Your task to perform on an android device: install app "Instagram" Image 0: 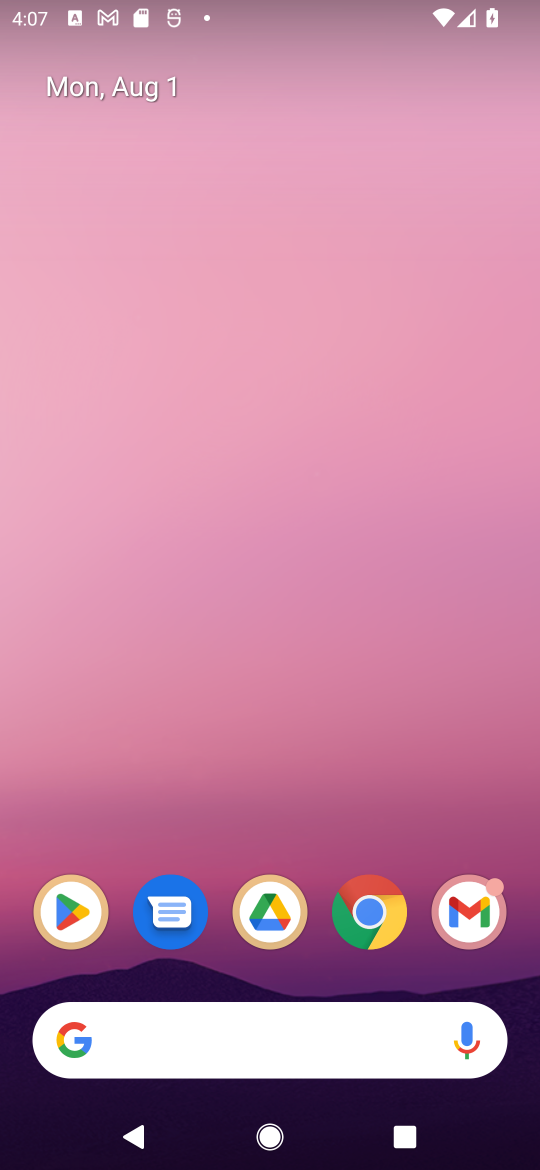
Step 0: click (66, 928)
Your task to perform on an android device: install app "Instagram" Image 1: 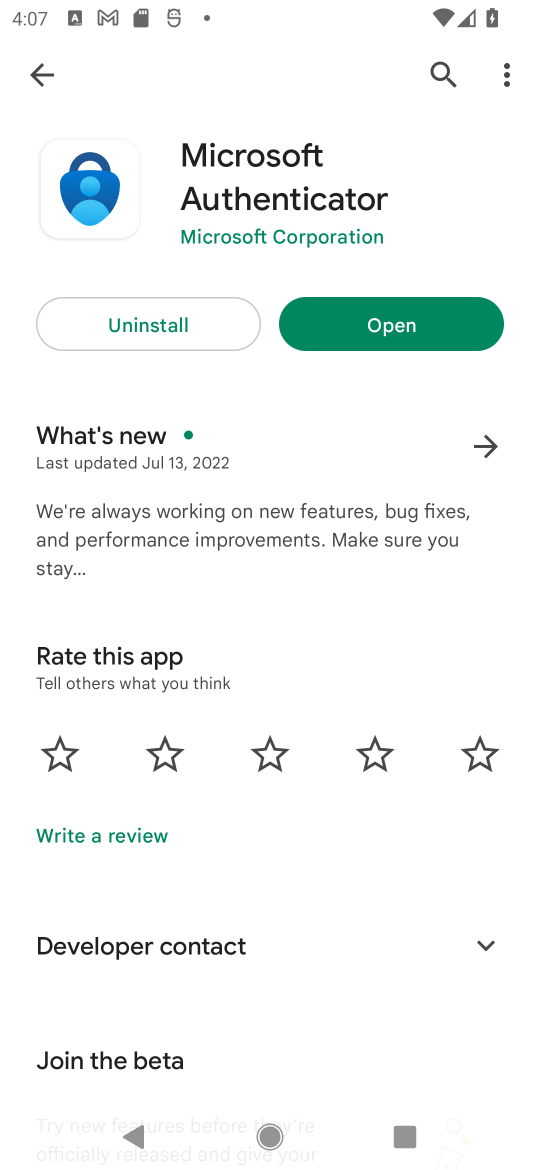
Step 1: click (436, 63)
Your task to perform on an android device: install app "Instagram" Image 2: 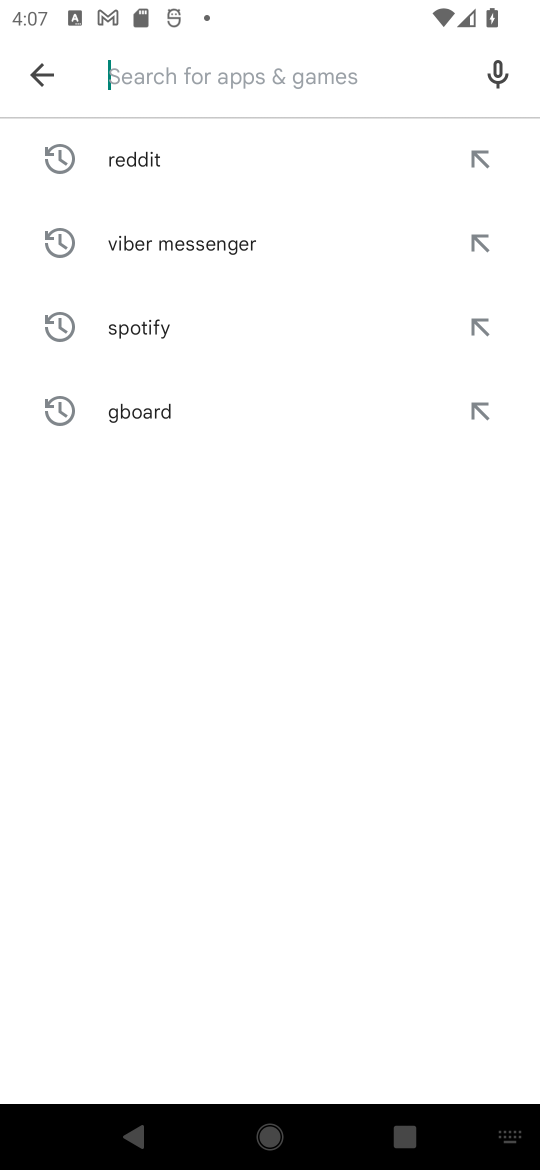
Step 2: click (291, 79)
Your task to perform on an android device: install app "Instagram" Image 3: 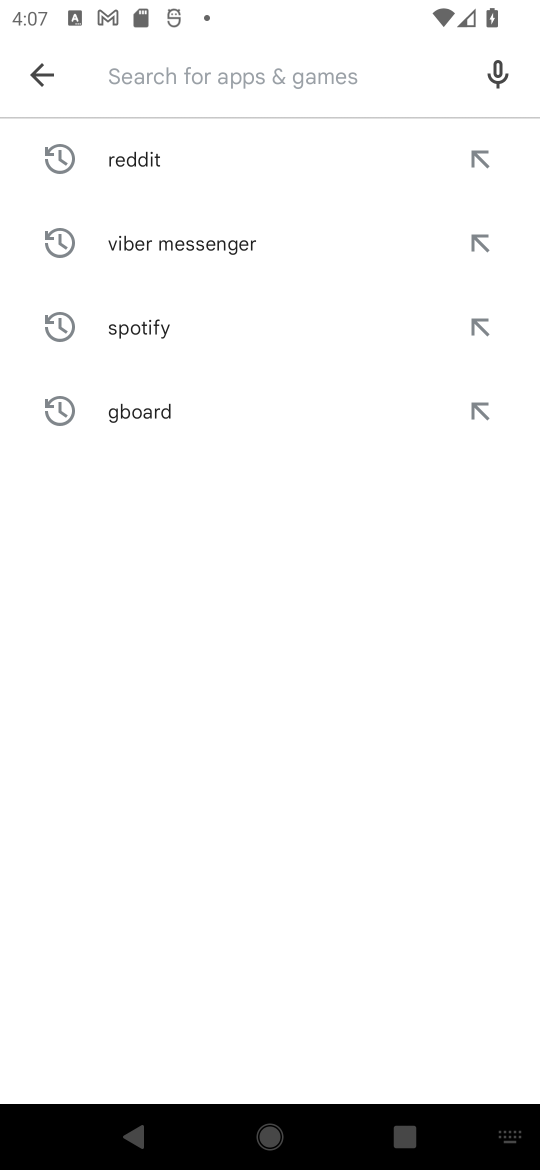
Step 3: type "Instagram"
Your task to perform on an android device: install app "Instagram" Image 4: 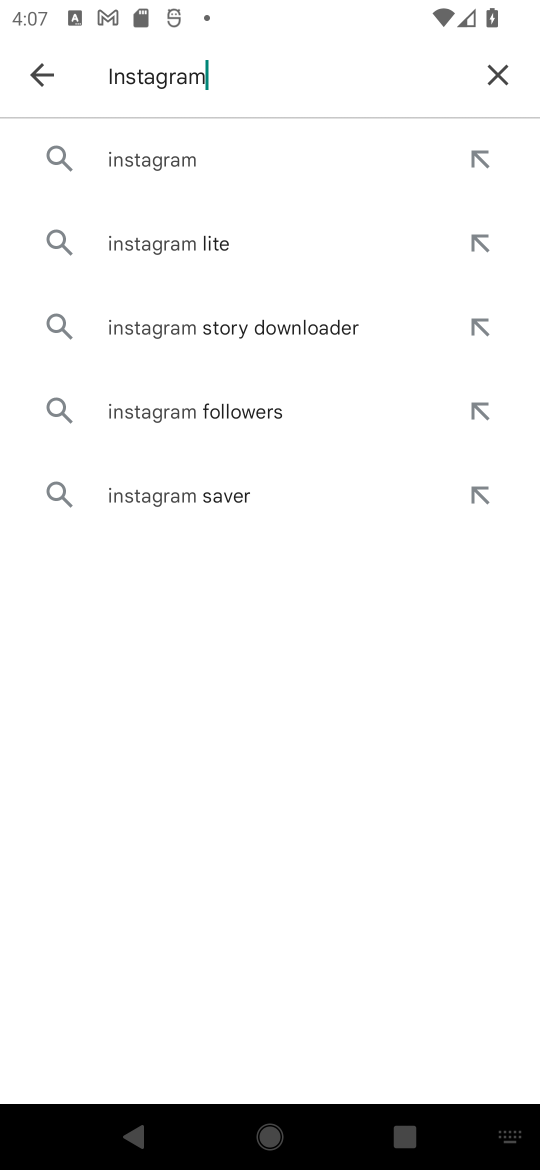
Step 4: click (101, 158)
Your task to perform on an android device: install app "Instagram" Image 5: 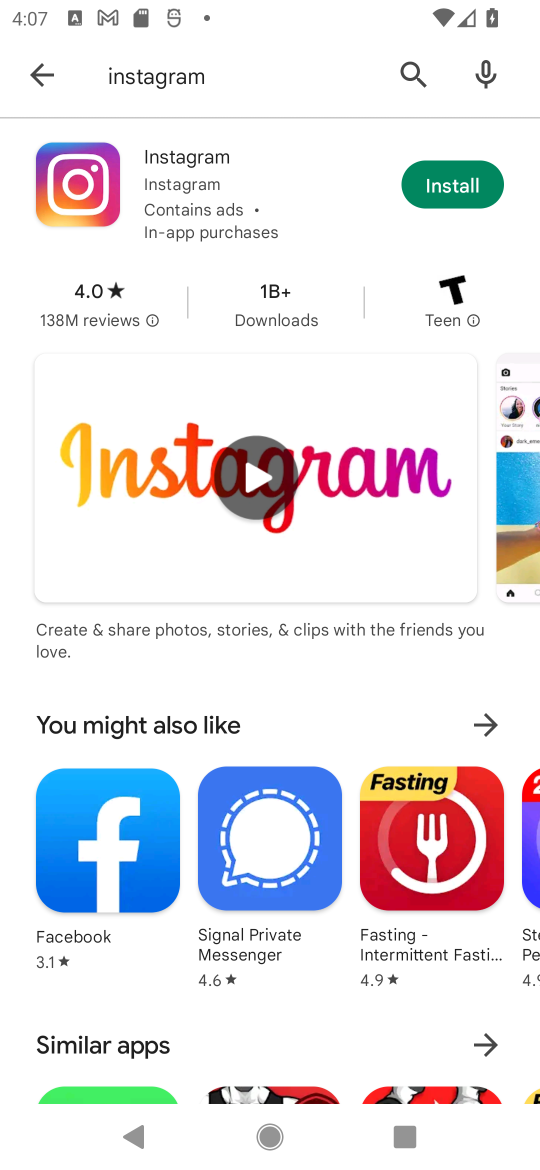
Step 5: click (461, 195)
Your task to perform on an android device: install app "Instagram" Image 6: 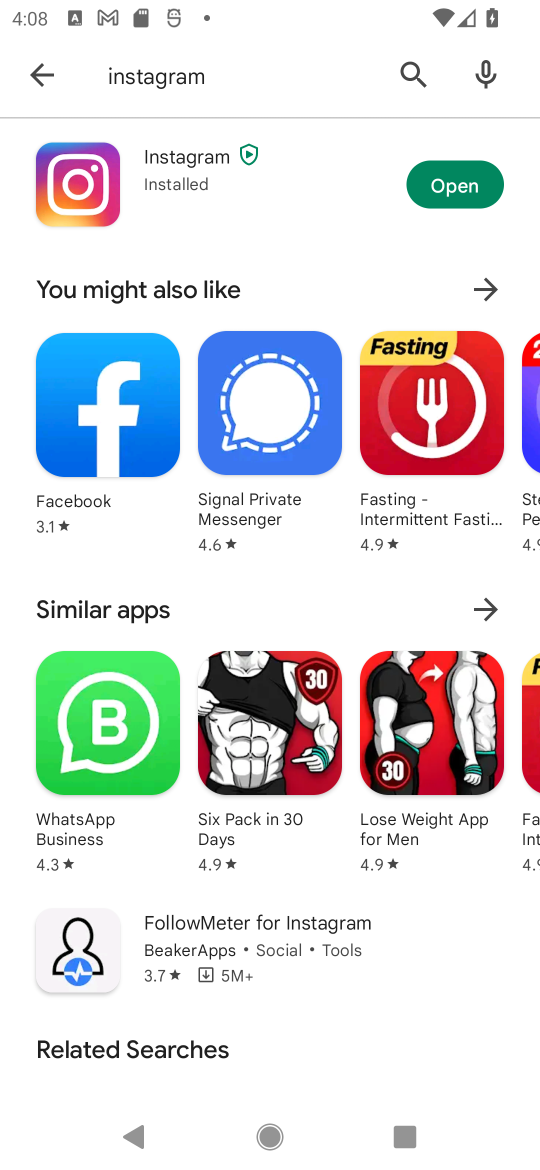
Step 6: task complete